Your task to perform on an android device: open app "Expedia: Hotels, Flights & Car" (install if not already installed) Image 0: 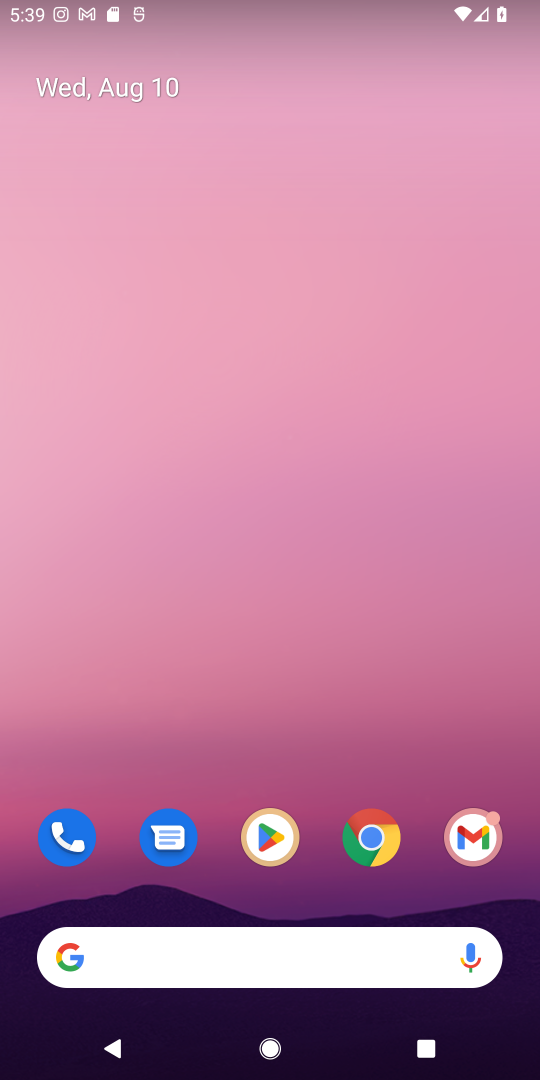
Step 0: click (270, 827)
Your task to perform on an android device: open app "Expedia: Hotels, Flights & Car" (install if not already installed) Image 1: 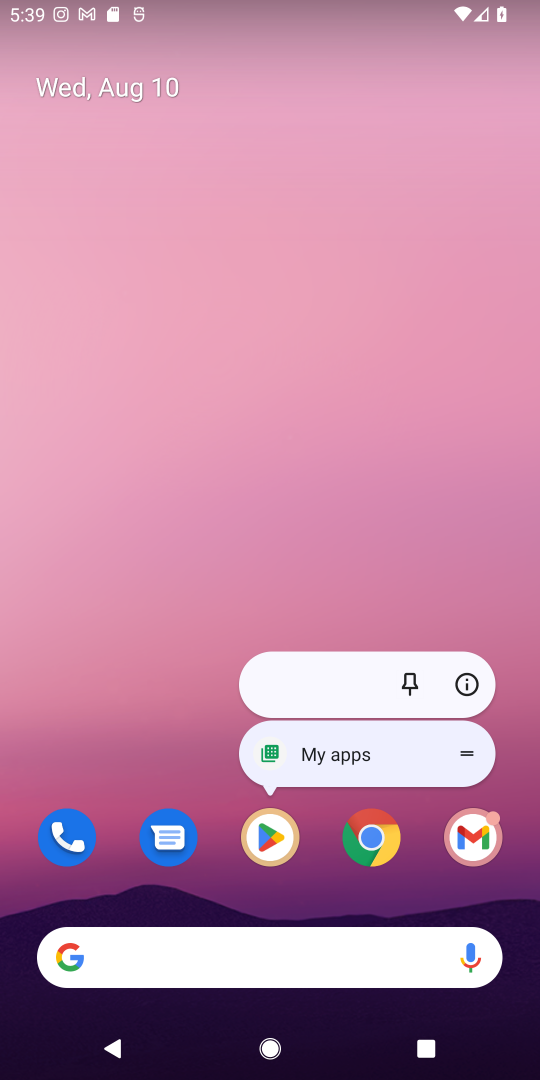
Step 1: click (269, 833)
Your task to perform on an android device: open app "Expedia: Hotels, Flights & Car" (install if not already installed) Image 2: 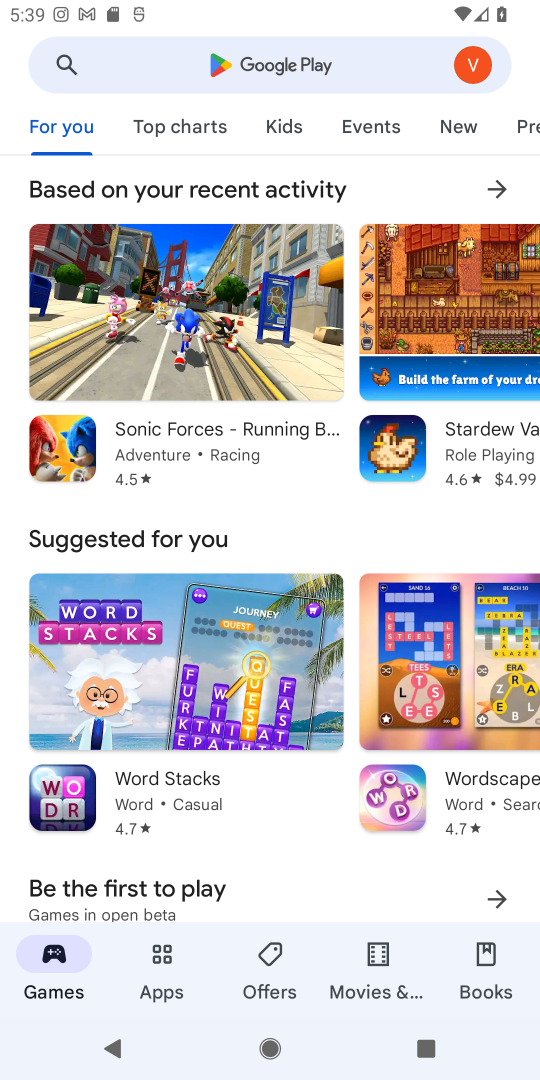
Step 2: click (305, 53)
Your task to perform on an android device: open app "Expedia: Hotels, Flights & Car" (install if not already installed) Image 3: 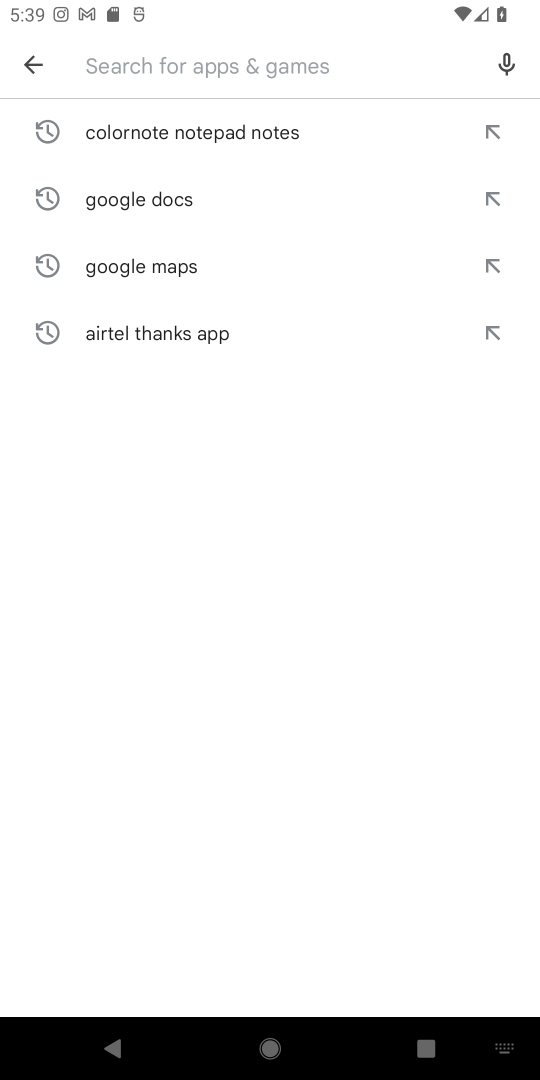
Step 3: type "Expedia: Hotels, Flights & Car"
Your task to perform on an android device: open app "Expedia: Hotels, Flights & Car" (install if not already installed) Image 4: 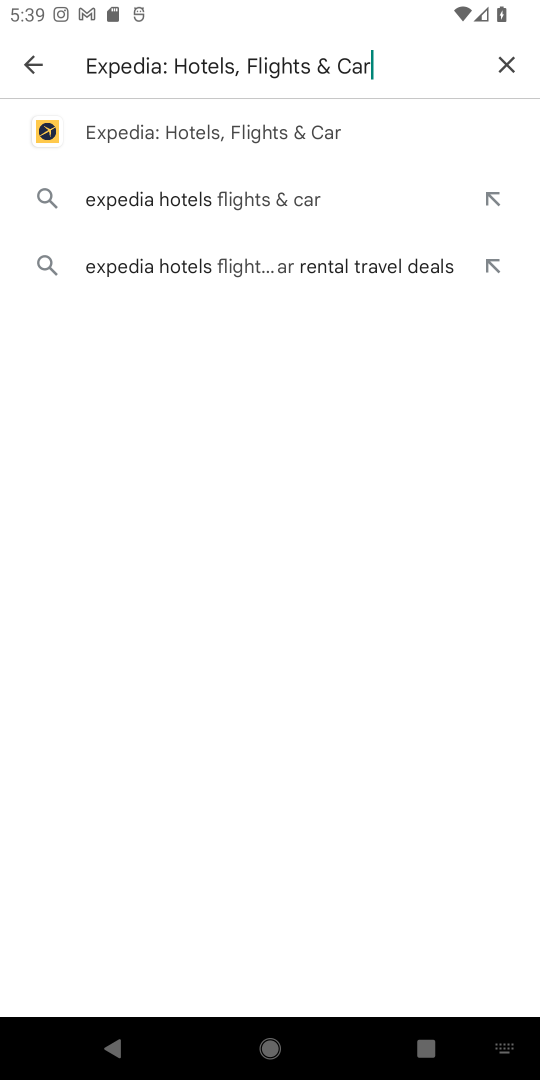
Step 4: click (211, 135)
Your task to perform on an android device: open app "Expedia: Hotels, Flights & Car" (install if not already installed) Image 5: 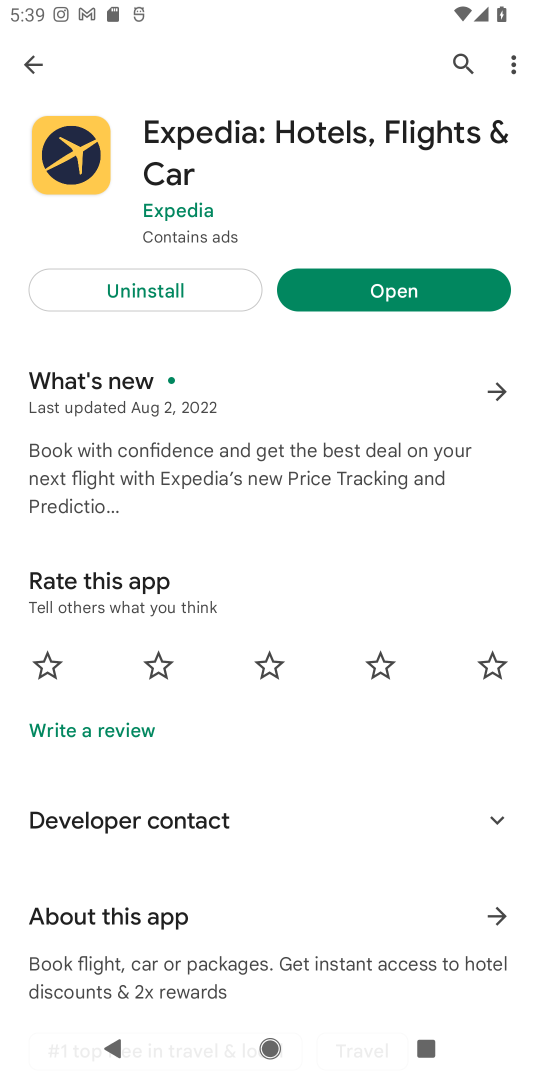
Step 5: click (422, 299)
Your task to perform on an android device: open app "Expedia: Hotels, Flights & Car" (install if not already installed) Image 6: 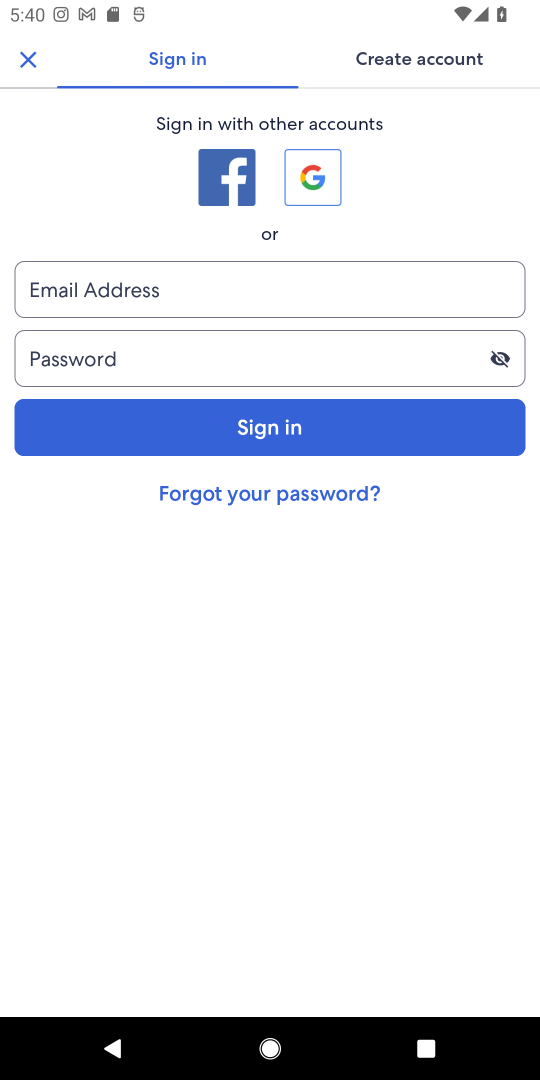
Step 6: task complete